Your task to perform on an android device: turn smart compose on in the gmail app Image 0: 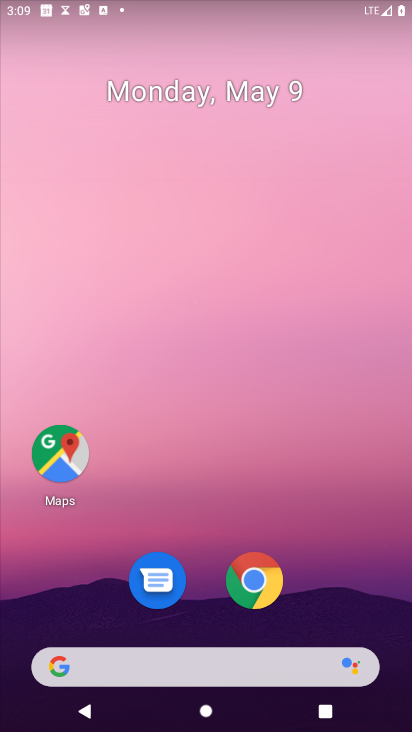
Step 0: drag from (357, 507) to (299, 145)
Your task to perform on an android device: turn smart compose on in the gmail app Image 1: 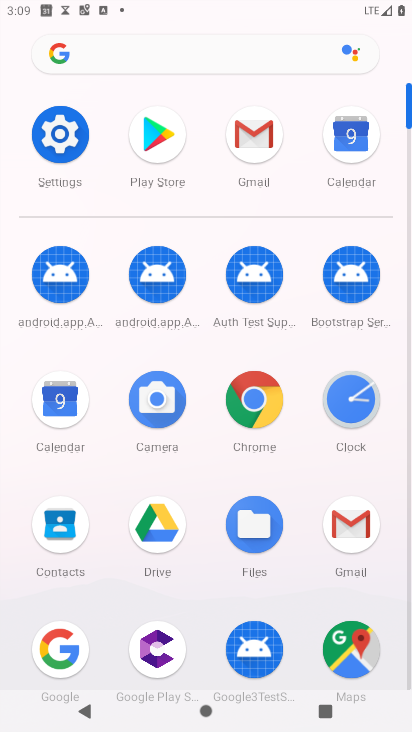
Step 1: click (350, 532)
Your task to perform on an android device: turn smart compose on in the gmail app Image 2: 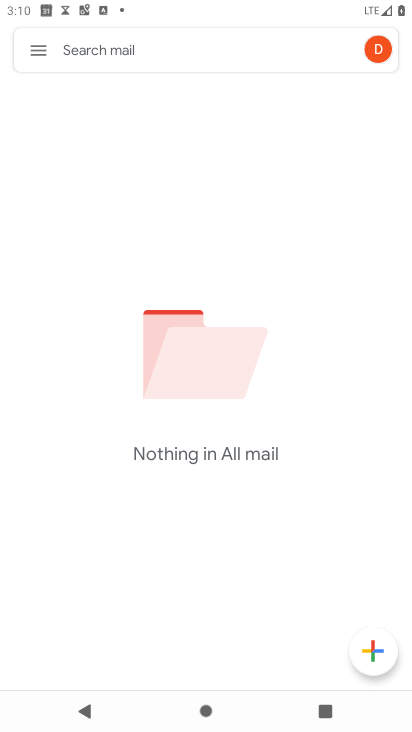
Step 2: click (39, 56)
Your task to perform on an android device: turn smart compose on in the gmail app Image 3: 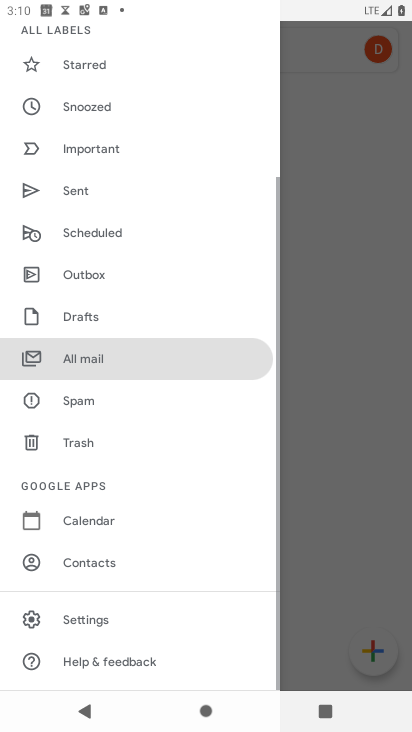
Step 3: click (126, 611)
Your task to perform on an android device: turn smart compose on in the gmail app Image 4: 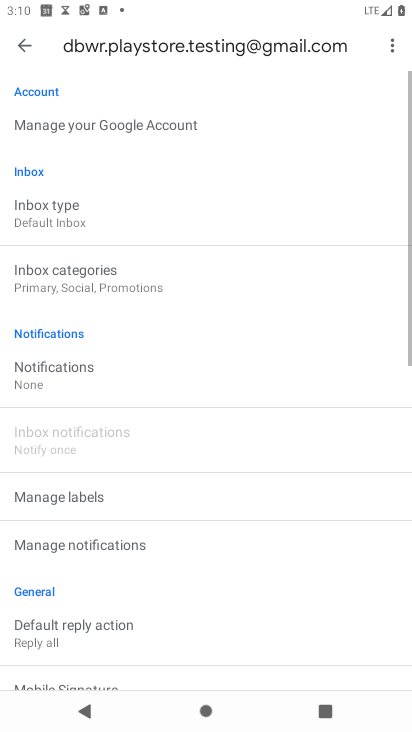
Step 4: task complete